Your task to perform on an android device: Search for pizza restaurants on Maps Image 0: 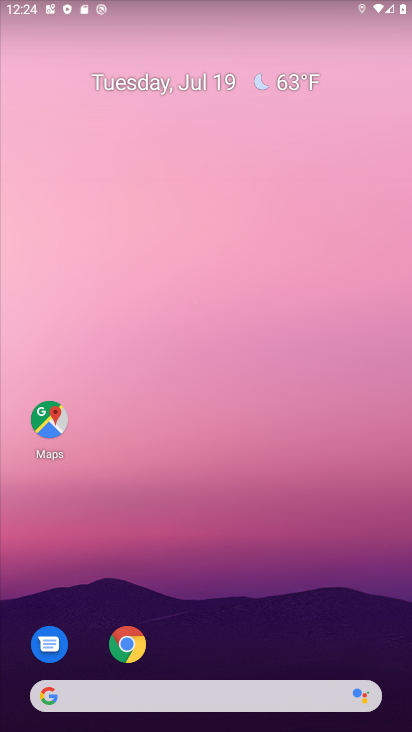
Step 0: drag from (219, 701) to (218, 302)
Your task to perform on an android device: Search for pizza restaurants on Maps Image 1: 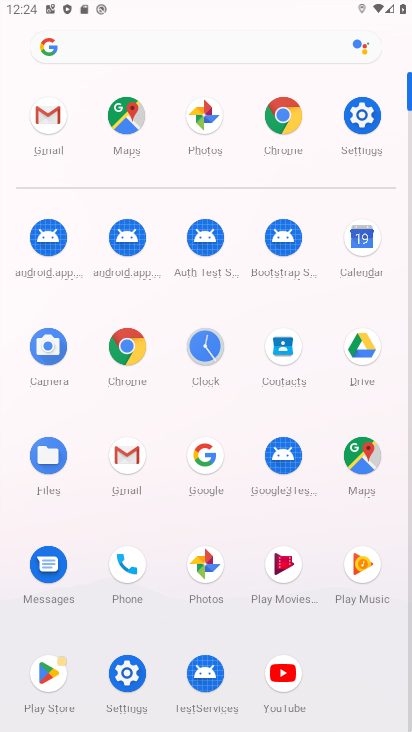
Step 1: click (368, 457)
Your task to perform on an android device: Search for pizza restaurants on Maps Image 2: 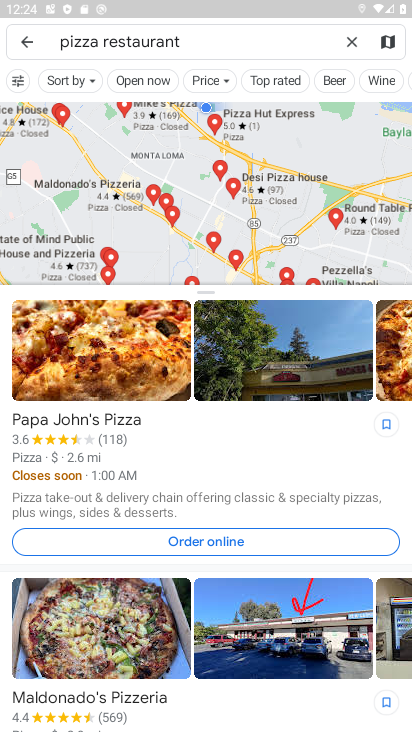
Step 2: task complete